Your task to perform on an android device: change the clock display to show seconds Image 0: 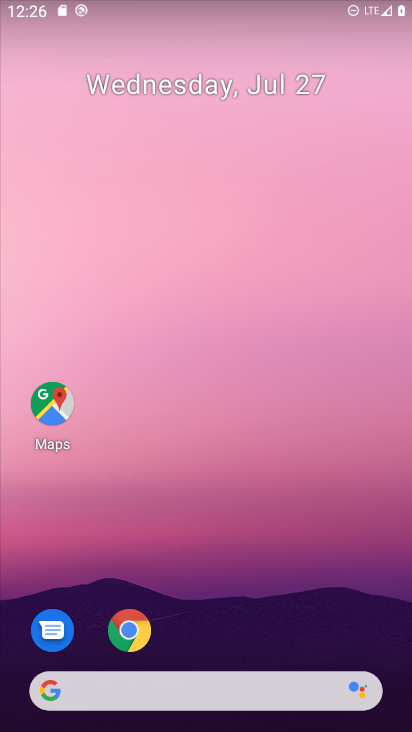
Step 0: drag from (378, 644) to (339, 82)
Your task to perform on an android device: change the clock display to show seconds Image 1: 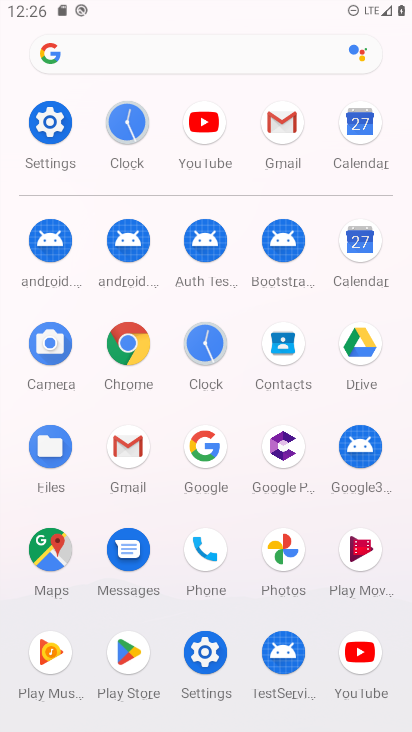
Step 1: click (206, 346)
Your task to perform on an android device: change the clock display to show seconds Image 2: 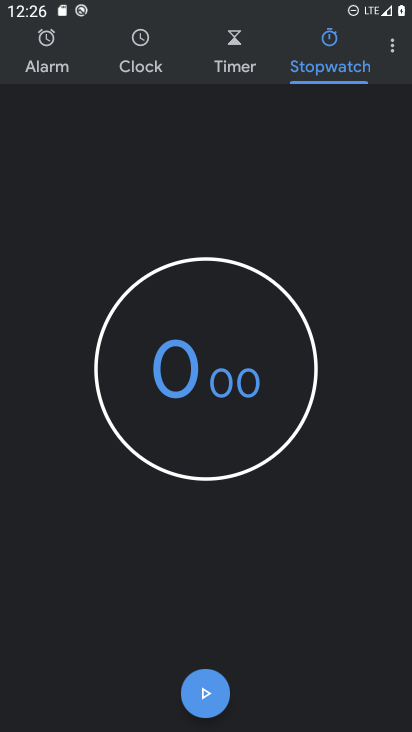
Step 2: click (392, 48)
Your task to perform on an android device: change the clock display to show seconds Image 3: 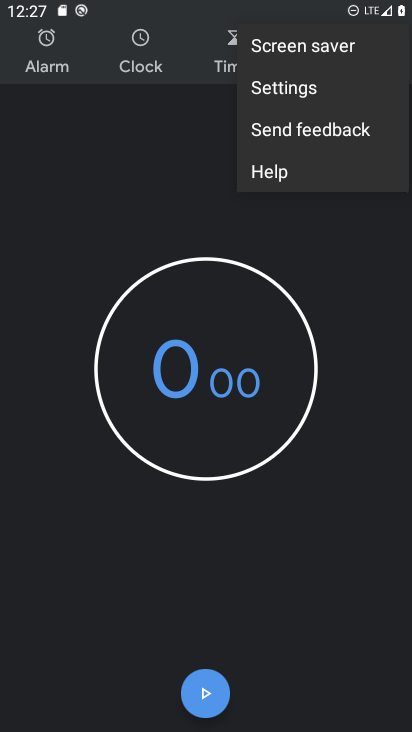
Step 3: click (266, 88)
Your task to perform on an android device: change the clock display to show seconds Image 4: 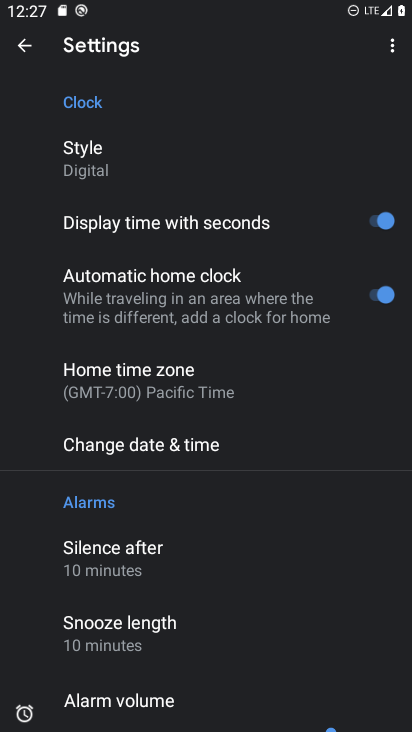
Step 4: task complete